Your task to perform on an android device: set default search engine in the chrome app Image 0: 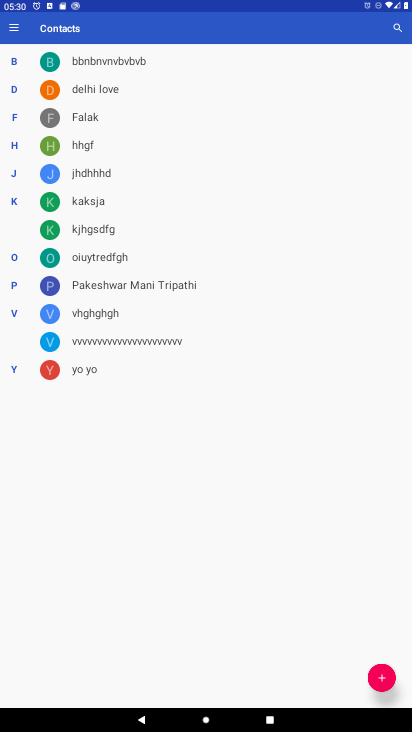
Step 0: press home button
Your task to perform on an android device: set default search engine in the chrome app Image 1: 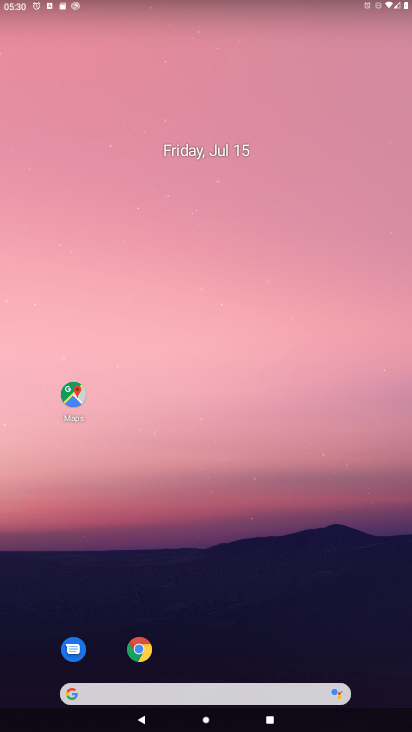
Step 1: click (138, 650)
Your task to perform on an android device: set default search engine in the chrome app Image 2: 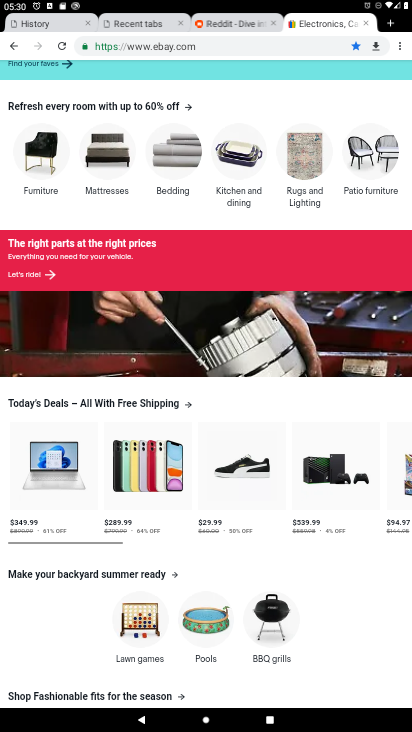
Step 2: click (399, 49)
Your task to perform on an android device: set default search engine in the chrome app Image 3: 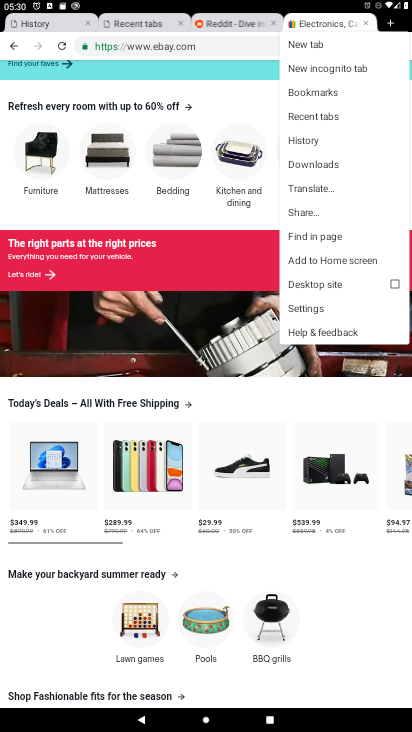
Step 3: click (306, 306)
Your task to perform on an android device: set default search engine in the chrome app Image 4: 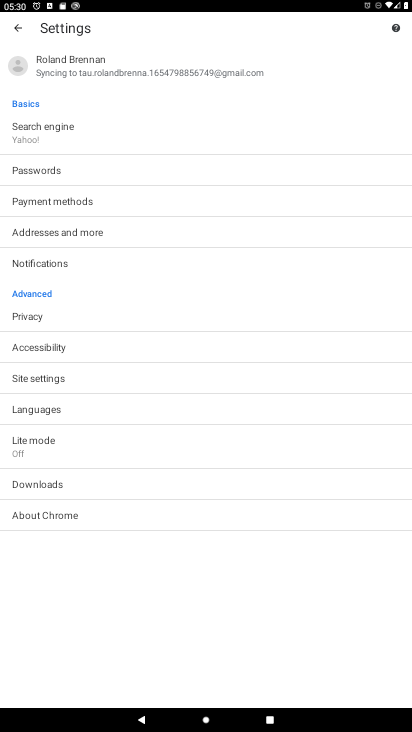
Step 4: click (44, 137)
Your task to perform on an android device: set default search engine in the chrome app Image 5: 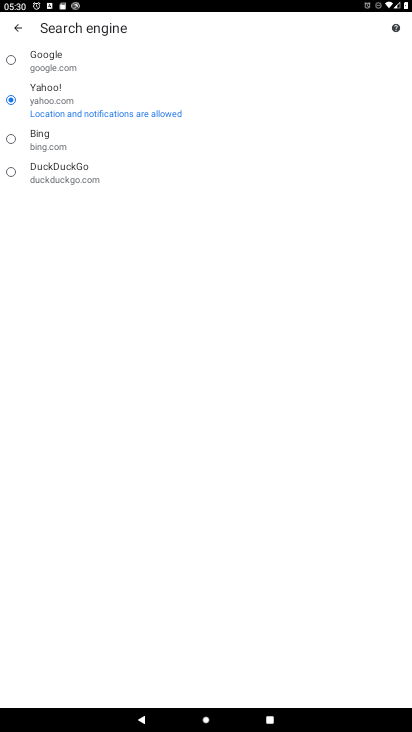
Step 5: click (12, 54)
Your task to perform on an android device: set default search engine in the chrome app Image 6: 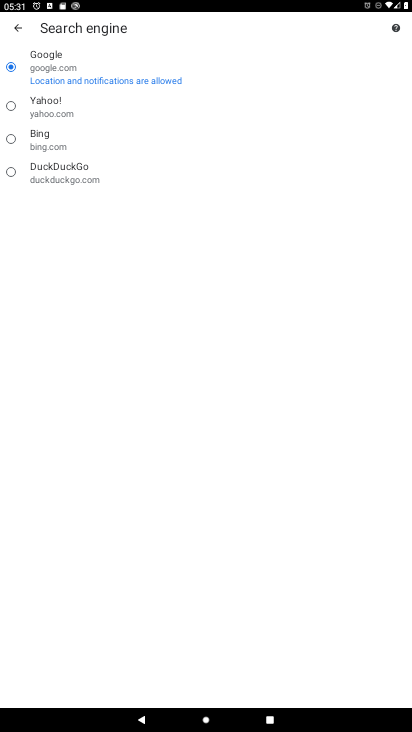
Step 6: task complete